Your task to perform on an android device: What's on my calendar today? Image 0: 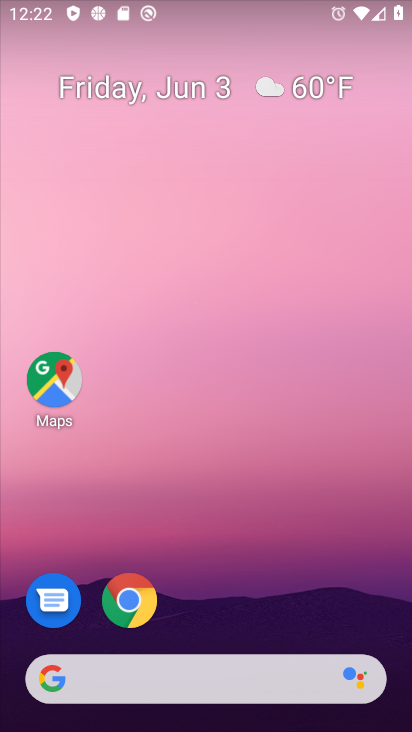
Step 0: drag from (235, 559) to (212, 138)
Your task to perform on an android device: What's on my calendar today? Image 1: 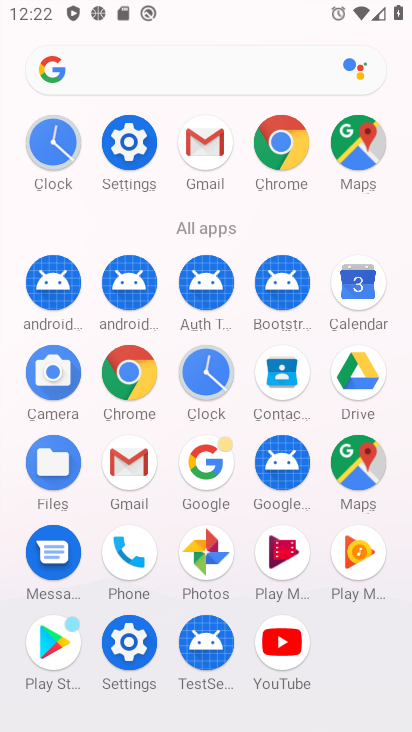
Step 1: click (353, 286)
Your task to perform on an android device: What's on my calendar today? Image 2: 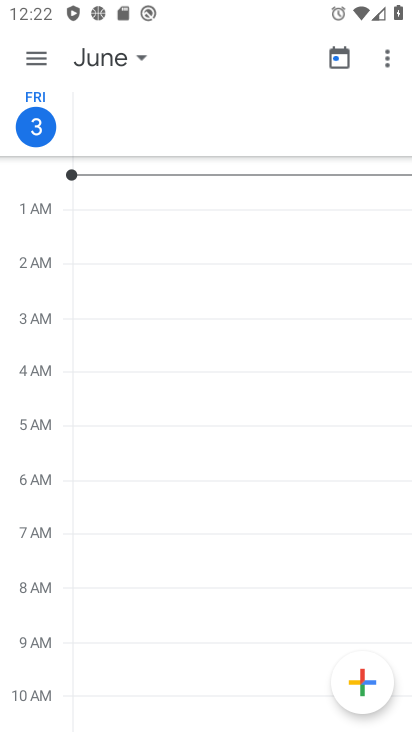
Step 2: click (84, 59)
Your task to perform on an android device: What's on my calendar today? Image 3: 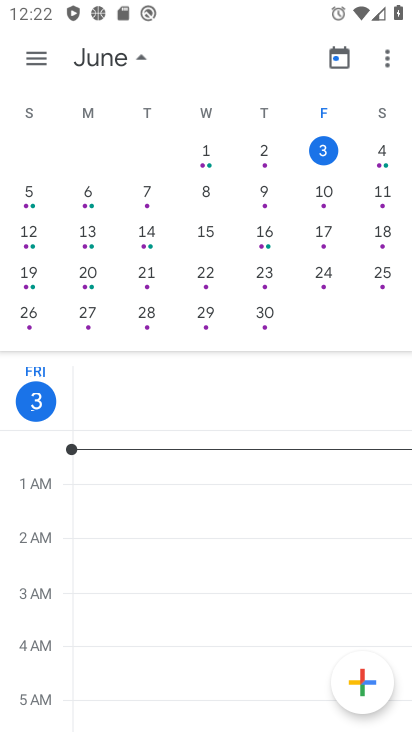
Step 3: drag from (47, 230) to (131, 235)
Your task to perform on an android device: What's on my calendar today? Image 4: 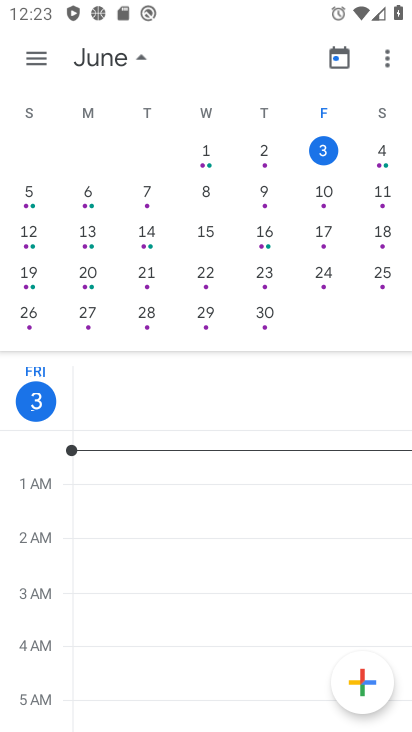
Step 4: click (323, 147)
Your task to perform on an android device: What's on my calendar today? Image 5: 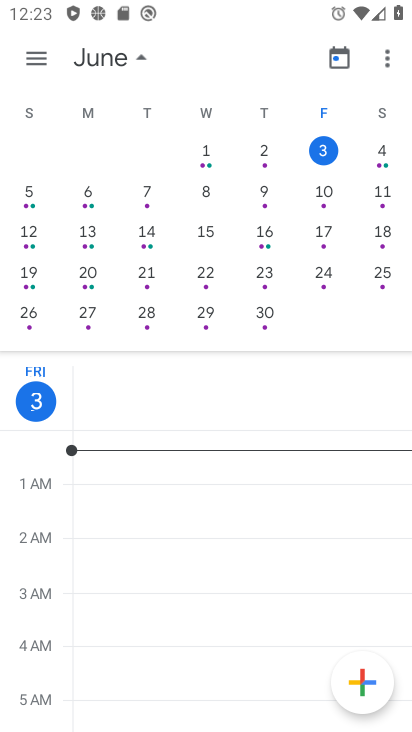
Step 5: task complete